Your task to perform on an android device: Is it going to rain this weekend? Image 0: 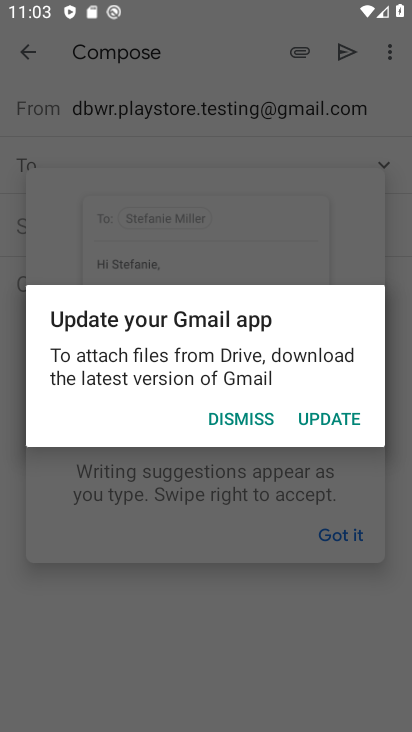
Step 0: press home button
Your task to perform on an android device: Is it going to rain this weekend? Image 1: 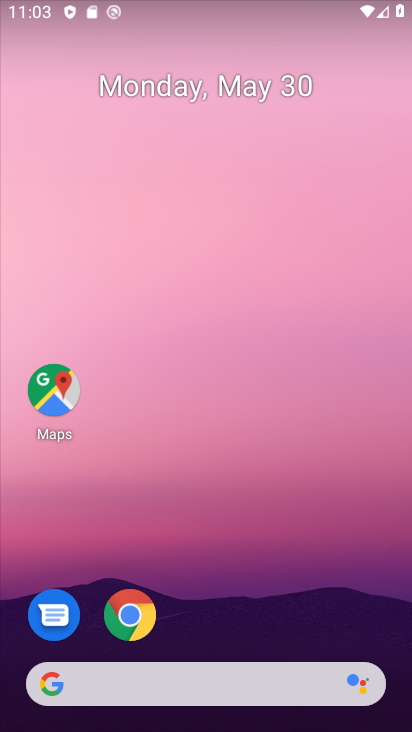
Step 1: click (213, 670)
Your task to perform on an android device: Is it going to rain this weekend? Image 2: 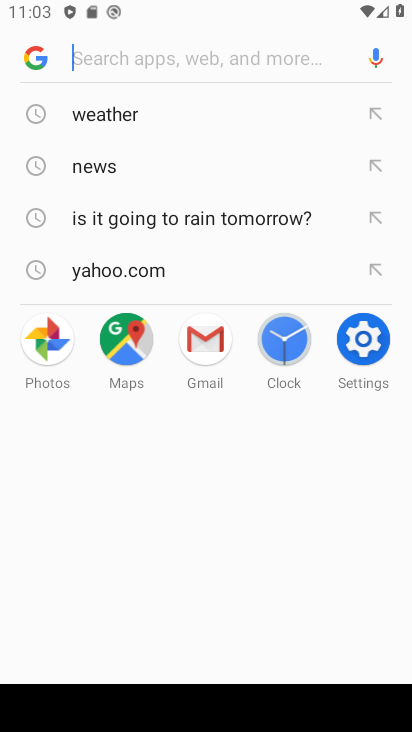
Step 2: click (126, 126)
Your task to perform on an android device: Is it going to rain this weekend? Image 3: 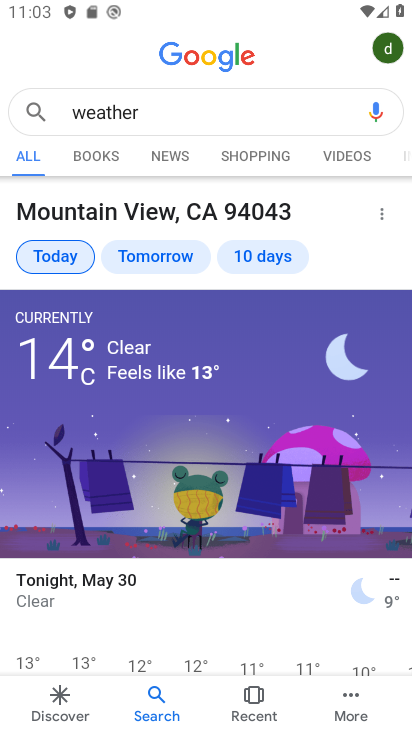
Step 3: click (257, 253)
Your task to perform on an android device: Is it going to rain this weekend? Image 4: 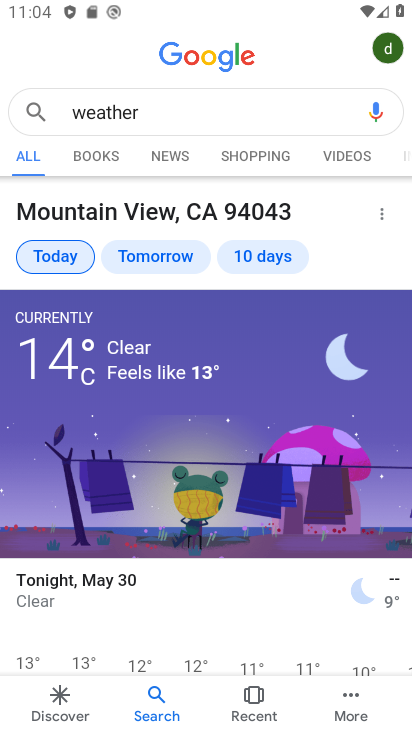
Step 4: click (257, 253)
Your task to perform on an android device: Is it going to rain this weekend? Image 5: 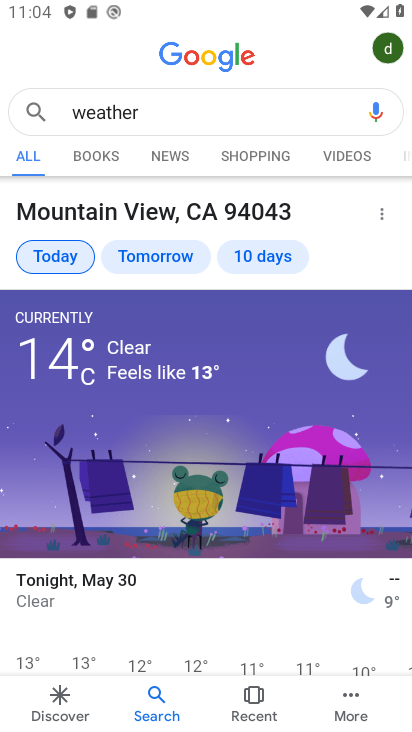
Step 5: click (272, 253)
Your task to perform on an android device: Is it going to rain this weekend? Image 6: 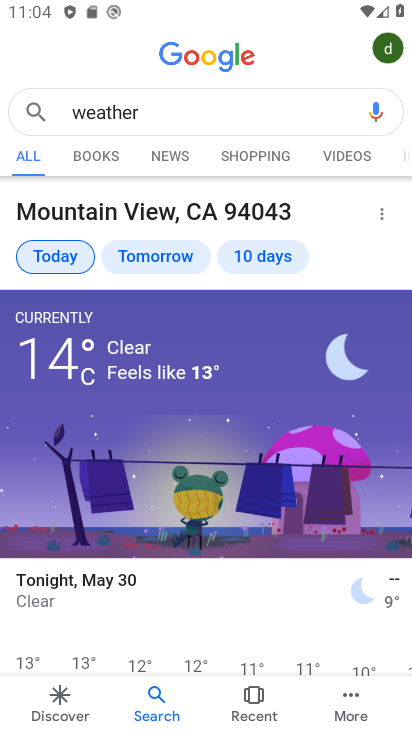
Step 6: task complete